Your task to perform on an android device: uninstall "Google Photos" Image 0: 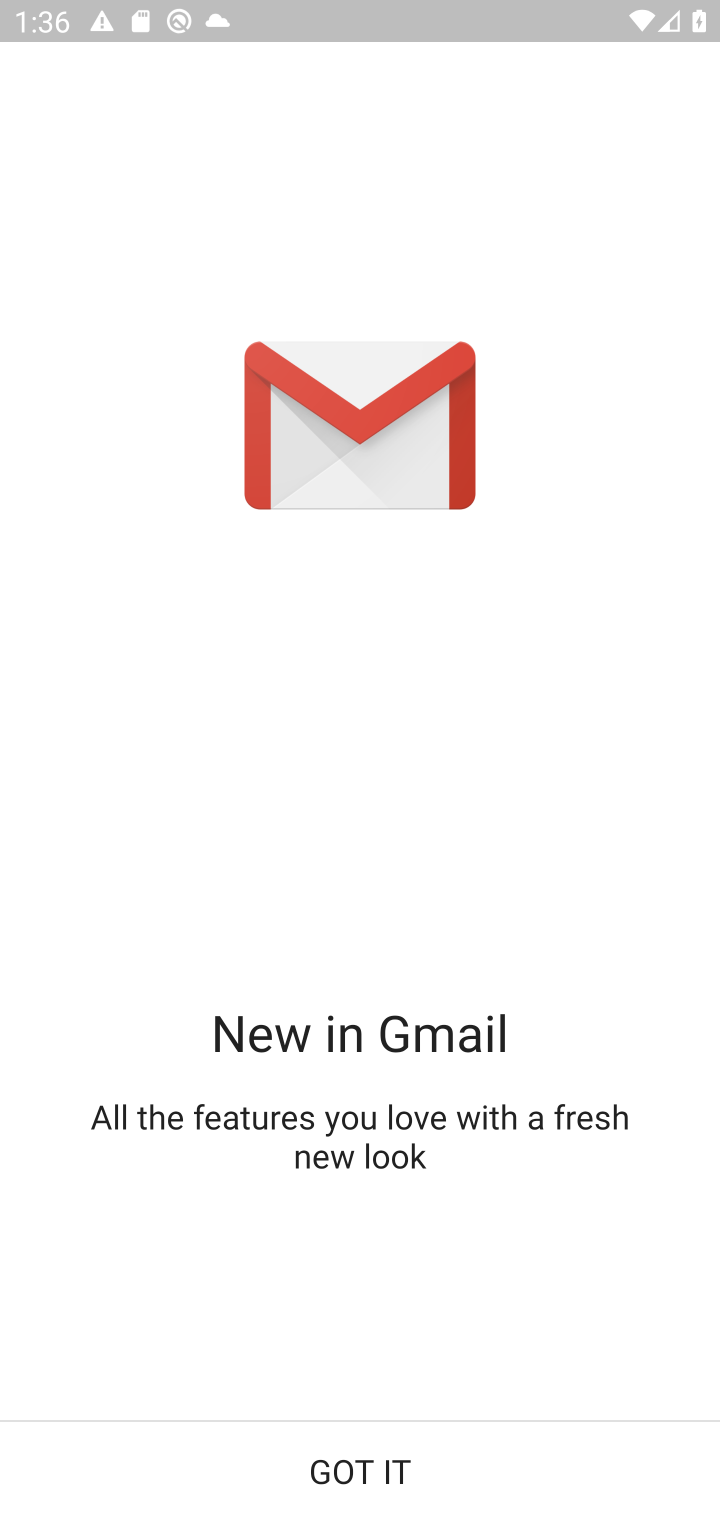
Step 0: press home button
Your task to perform on an android device: uninstall "Google Photos" Image 1: 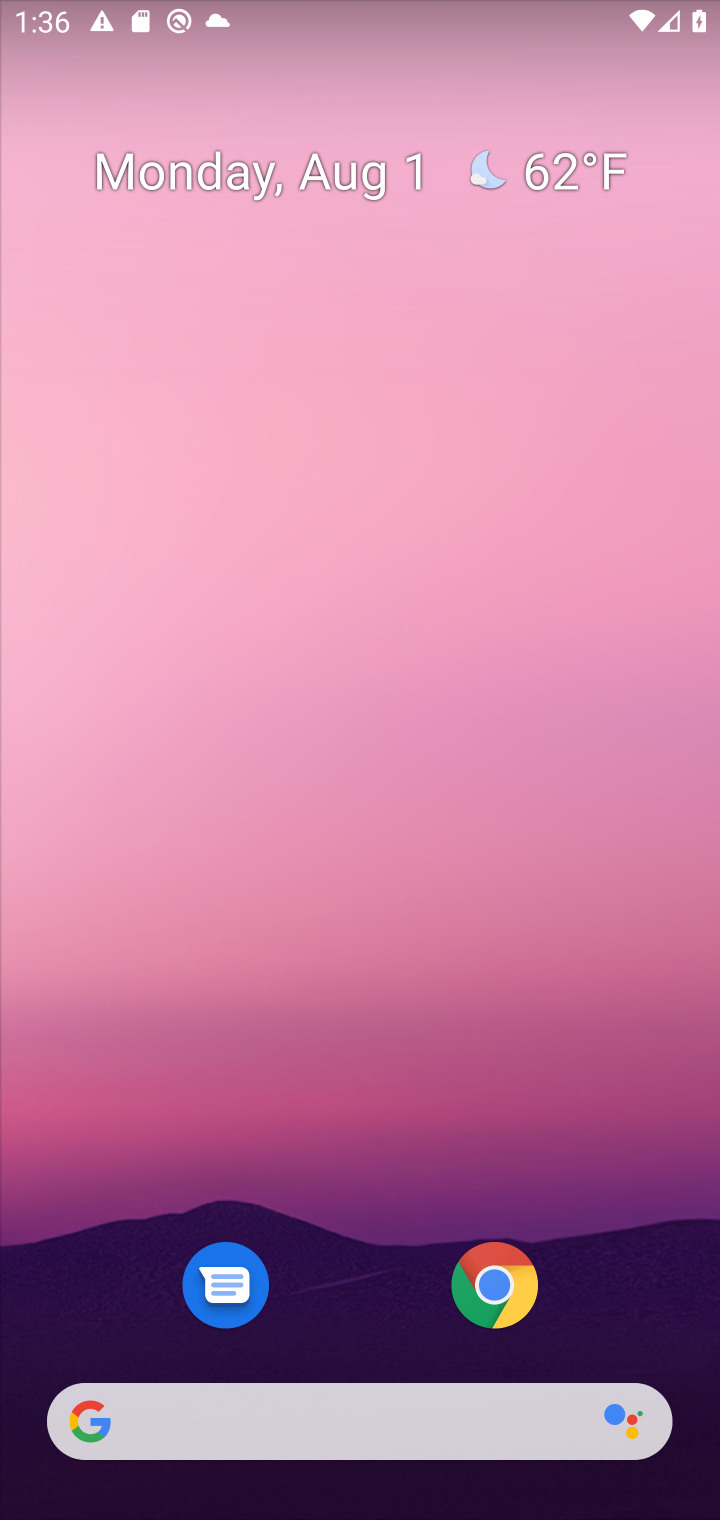
Step 1: drag from (313, 512) to (313, 367)
Your task to perform on an android device: uninstall "Google Photos" Image 2: 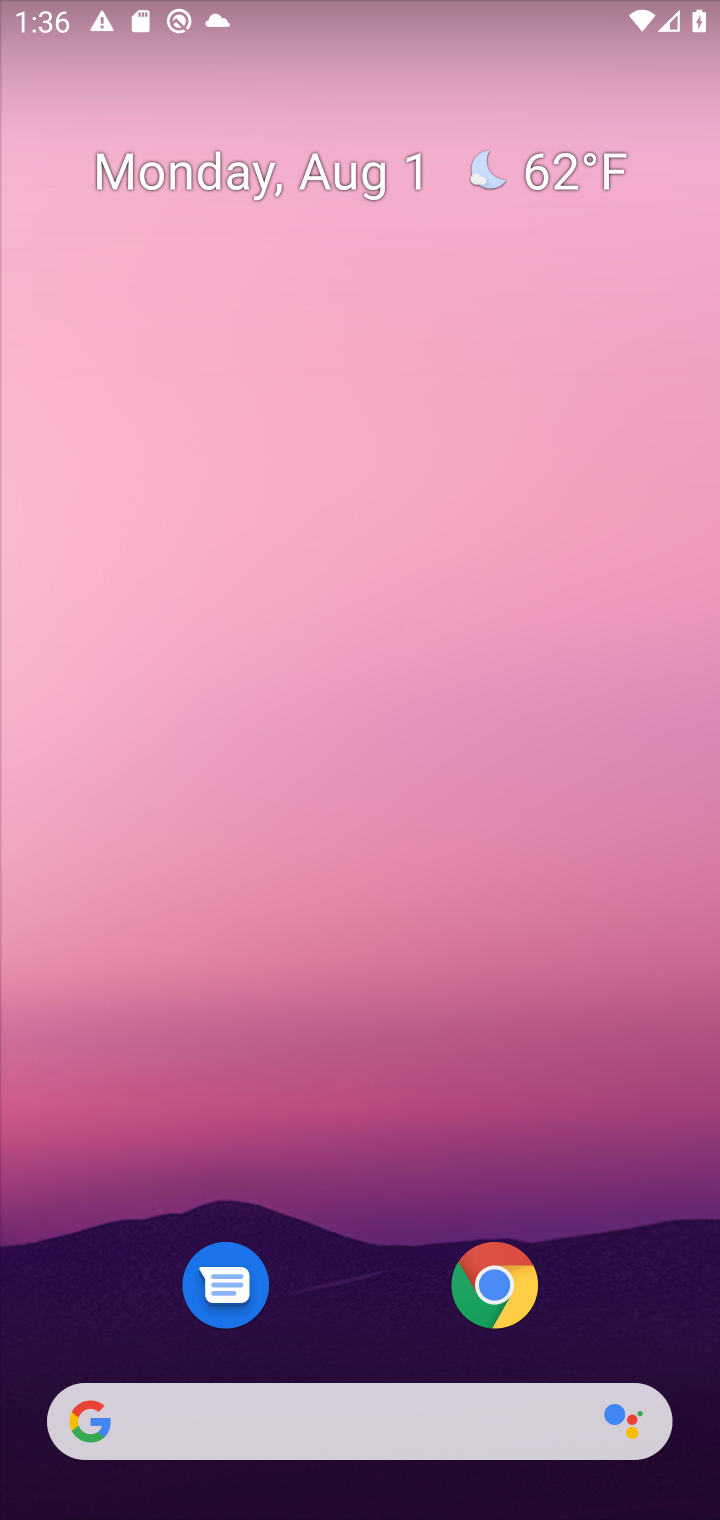
Step 2: drag from (335, 451) to (335, 145)
Your task to perform on an android device: uninstall "Google Photos" Image 3: 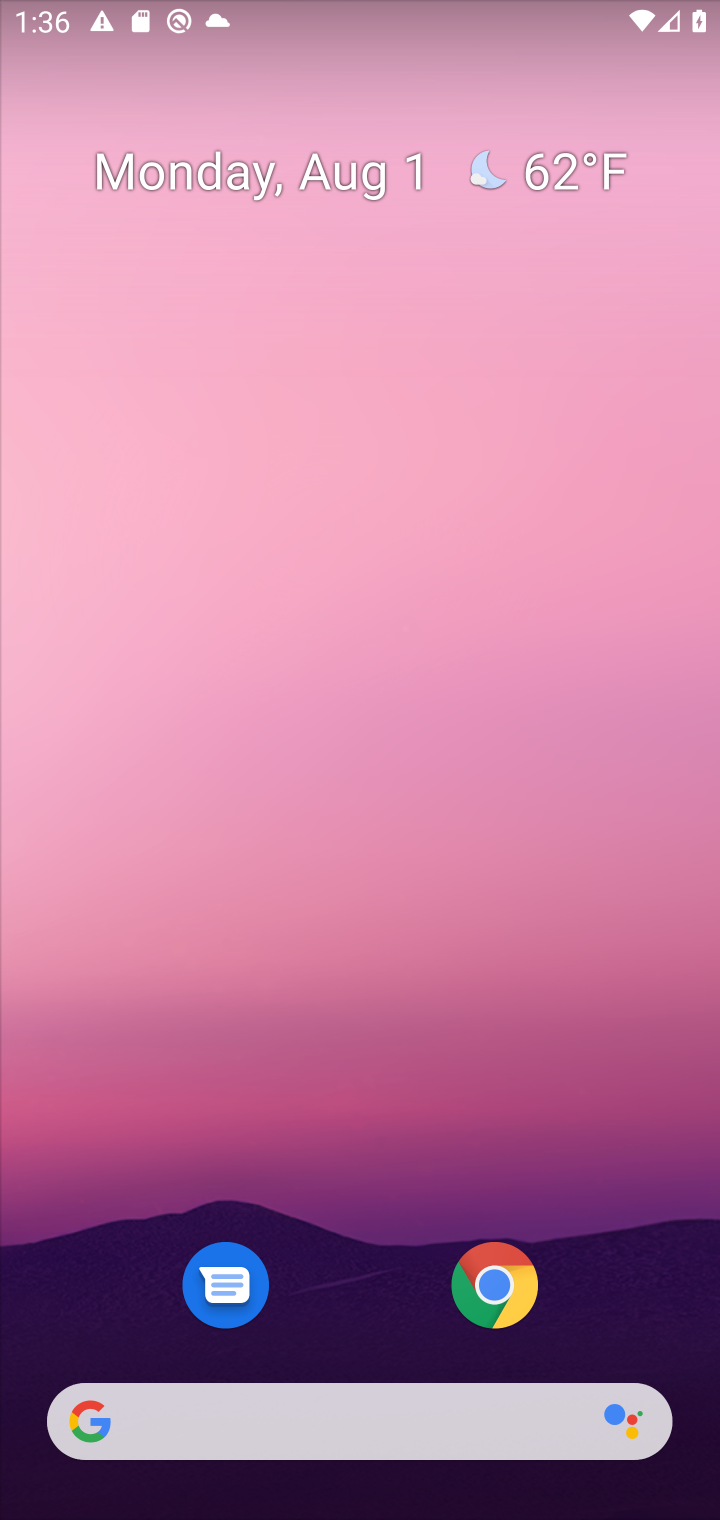
Step 3: drag from (395, 1396) to (388, 217)
Your task to perform on an android device: uninstall "Google Photos" Image 4: 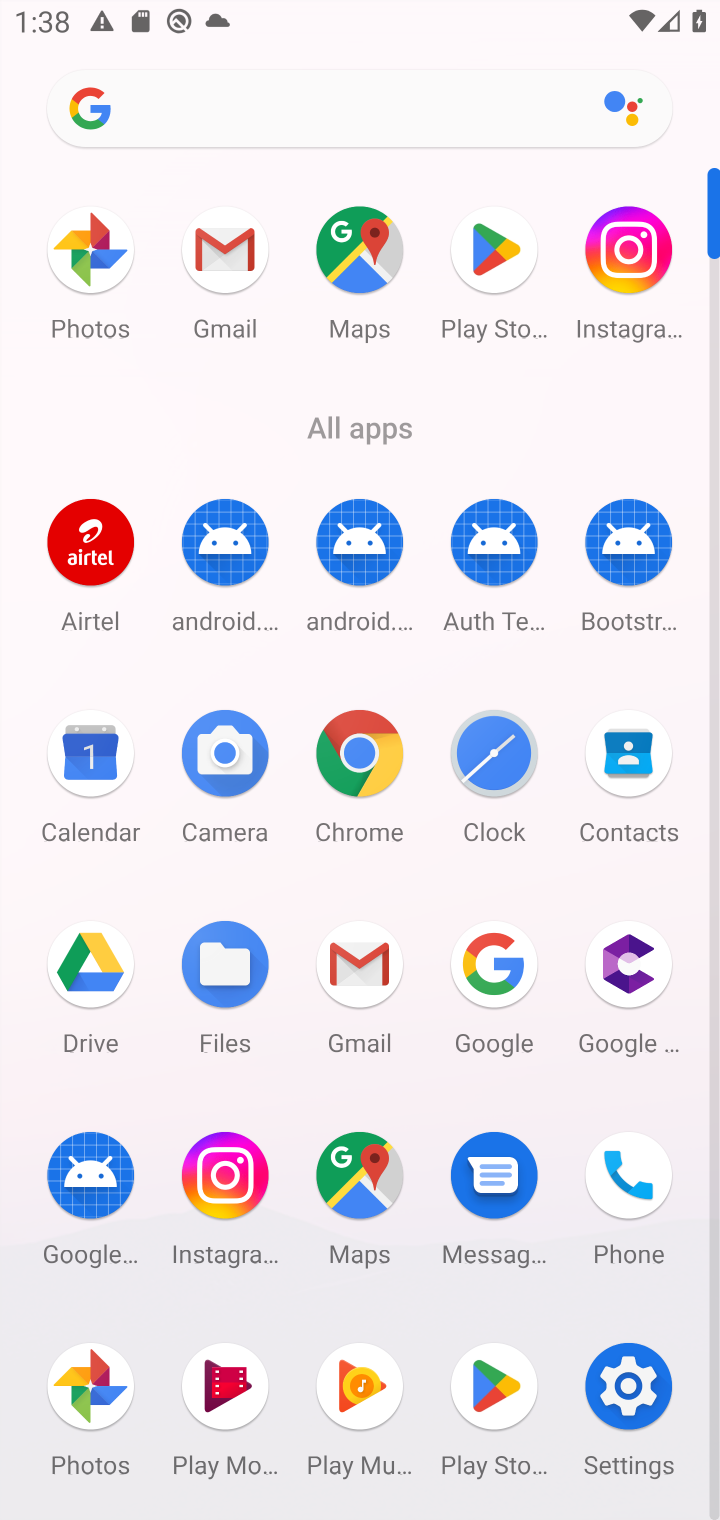
Step 4: click (96, 1375)
Your task to perform on an android device: uninstall "Google Photos" Image 5: 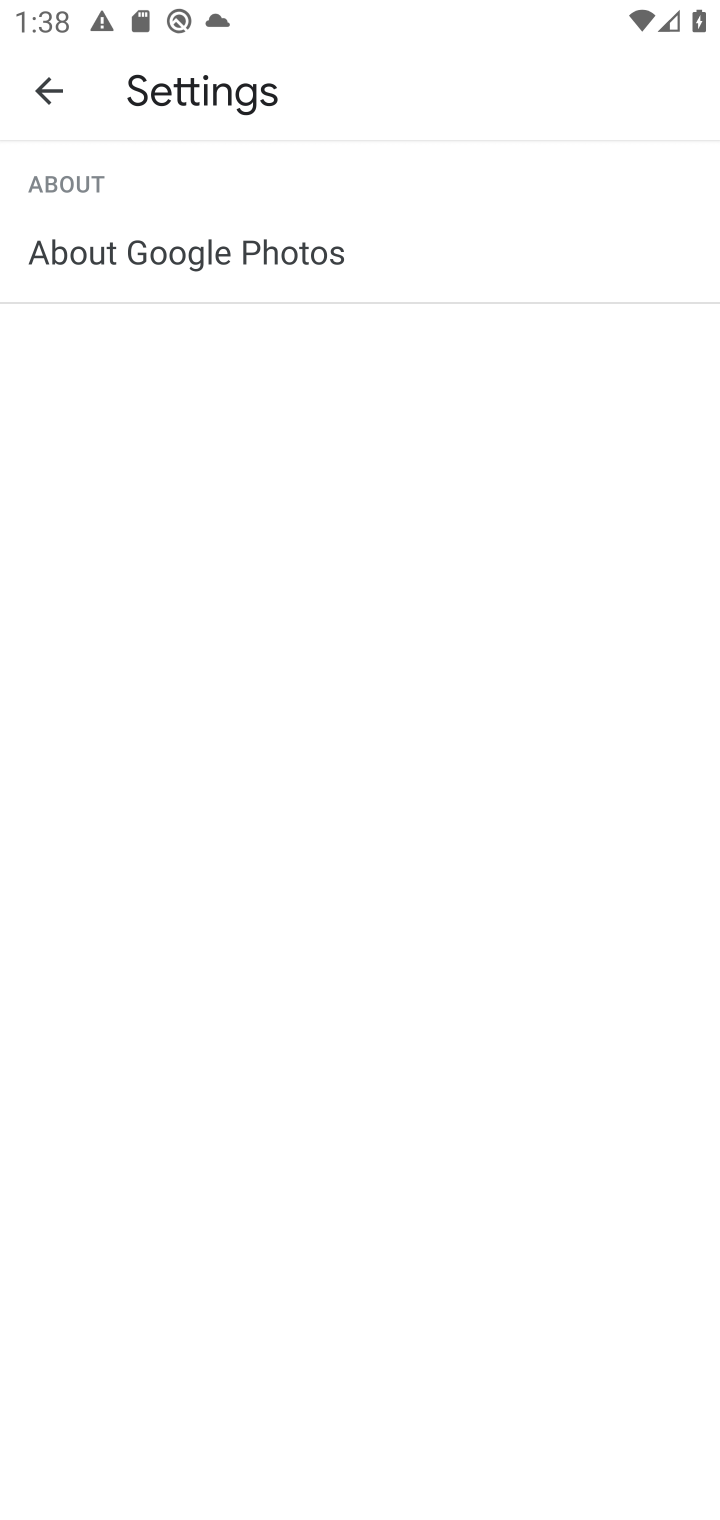
Step 5: task complete